Your task to perform on an android device: Turn off the flashlight Image 0: 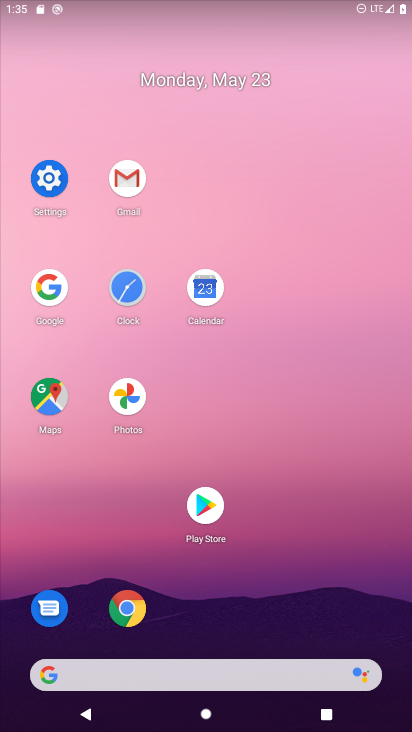
Step 0: drag from (299, 8) to (327, 396)
Your task to perform on an android device: Turn off the flashlight Image 1: 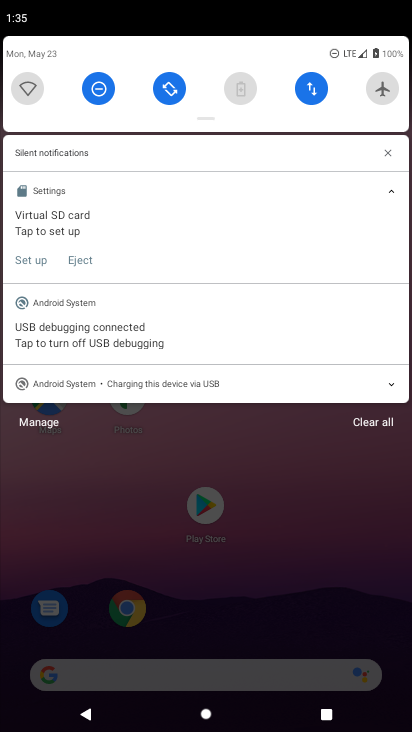
Step 1: task complete